Your task to perform on an android device: change the clock display to analog Image 0: 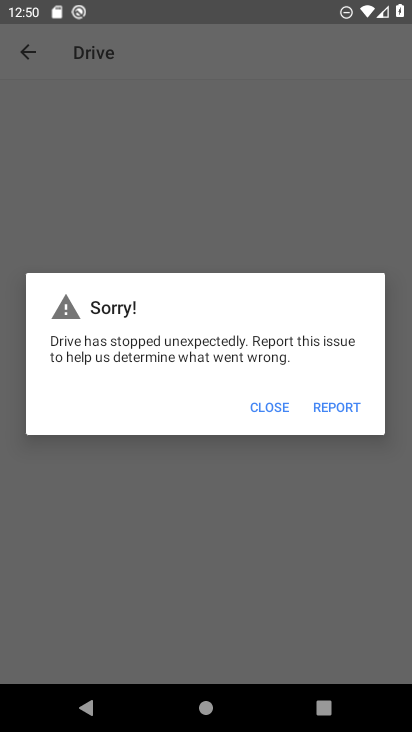
Step 0: press home button
Your task to perform on an android device: change the clock display to analog Image 1: 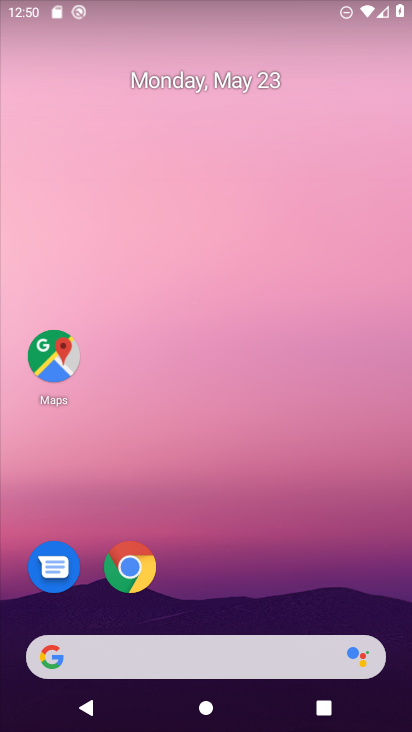
Step 1: drag from (177, 630) to (165, 82)
Your task to perform on an android device: change the clock display to analog Image 2: 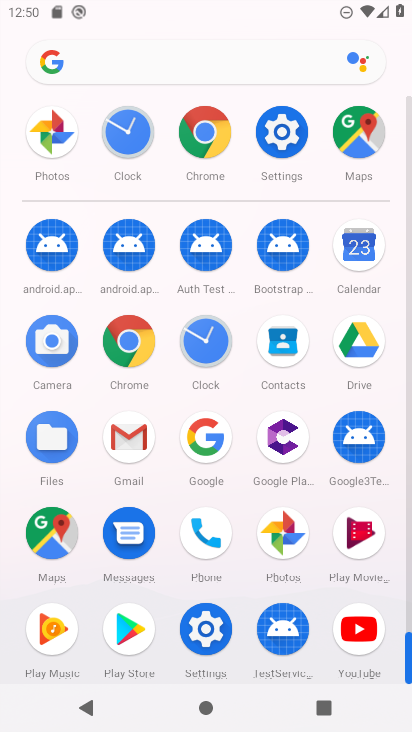
Step 2: click (203, 336)
Your task to perform on an android device: change the clock display to analog Image 3: 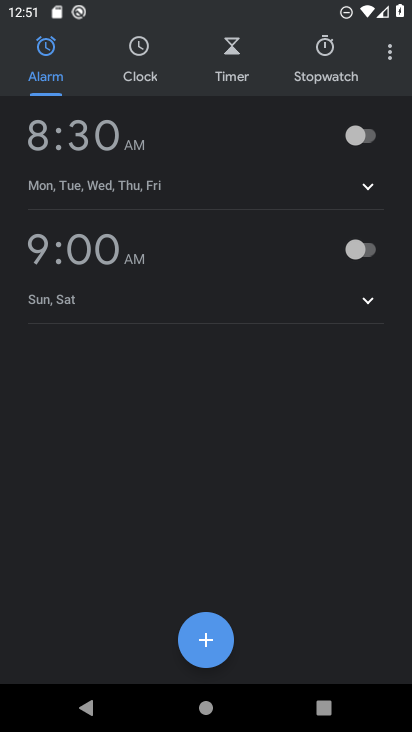
Step 3: click (399, 49)
Your task to perform on an android device: change the clock display to analog Image 4: 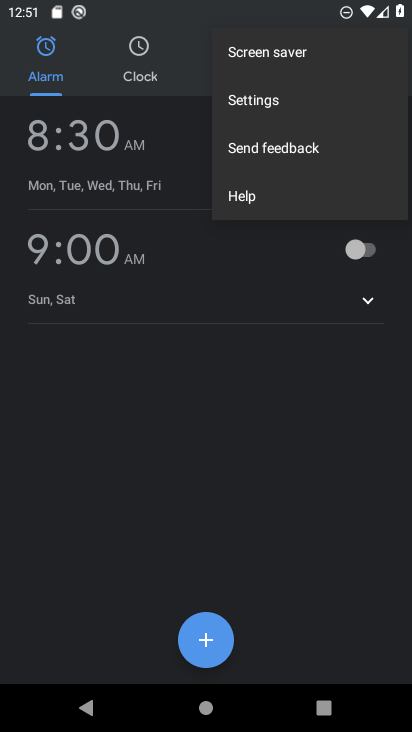
Step 4: click (276, 103)
Your task to perform on an android device: change the clock display to analog Image 5: 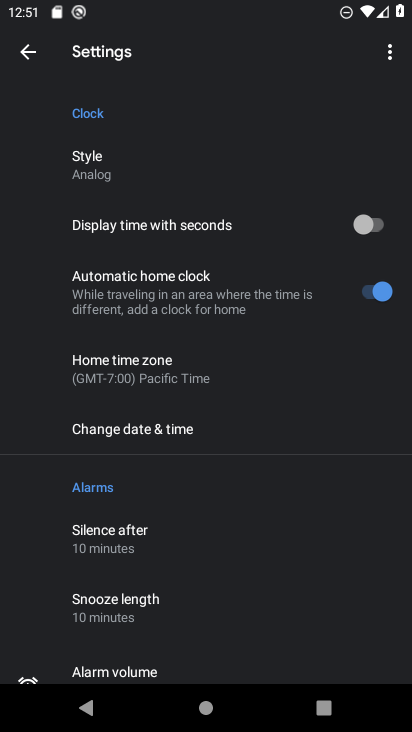
Step 5: task complete